Your task to perform on an android device: Go to Google maps Image 0: 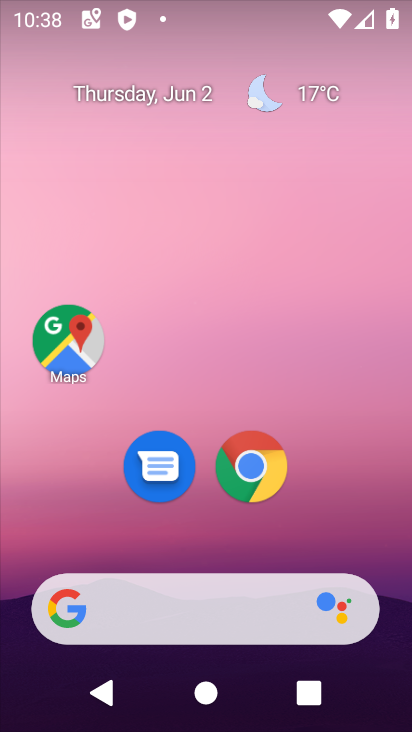
Step 0: drag from (193, 418) to (186, 238)
Your task to perform on an android device: Go to Google maps Image 1: 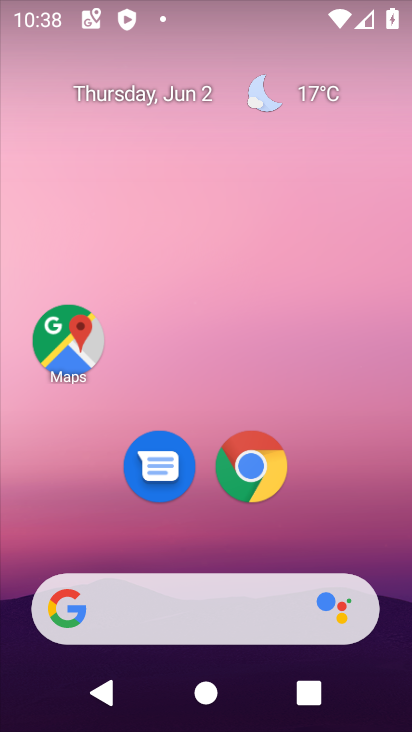
Step 1: drag from (200, 293) to (188, 526)
Your task to perform on an android device: Go to Google maps Image 2: 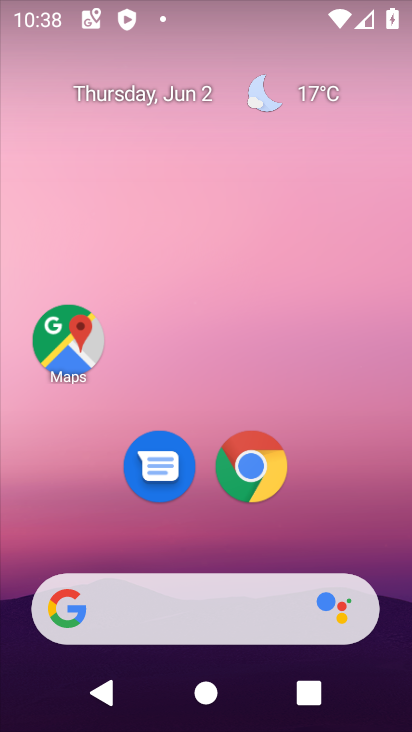
Step 2: click (52, 327)
Your task to perform on an android device: Go to Google maps Image 3: 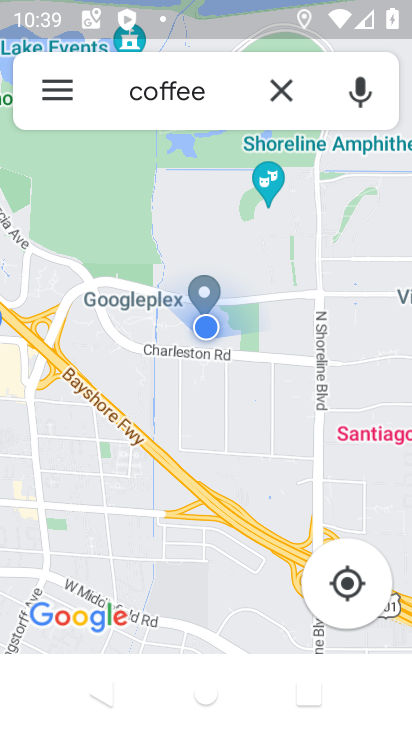
Step 3: task complete